Your task to perform on an android device: Go to Google maps Image 0: 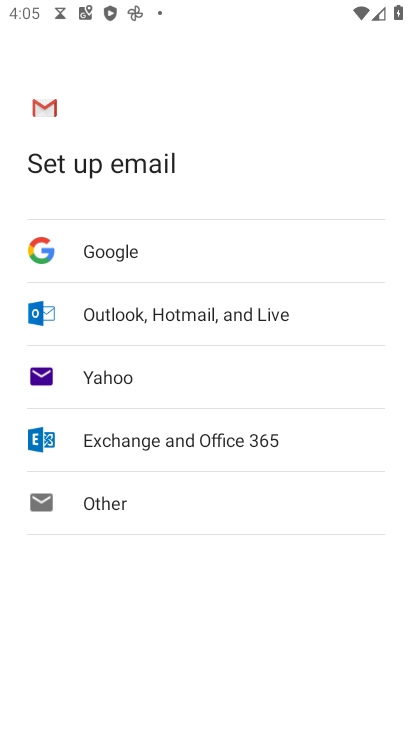
Step 0: press home button
Your task to perform on an android device: Go to Google maps Image 1: 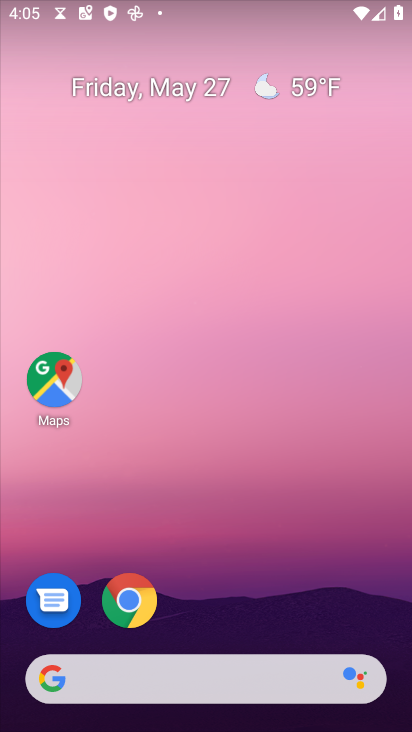
Step 1: click (58, 382)
Your task to perform on an android device: Go to Google maps Image 2: 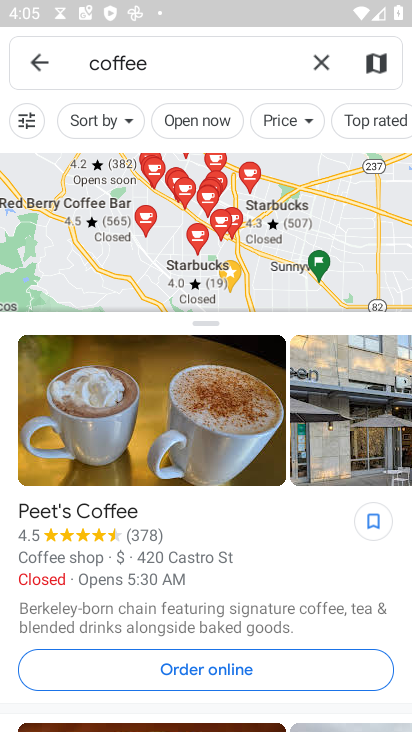
Step 2: task complete